Your task to perform on an android device: Go to settings Image 0: 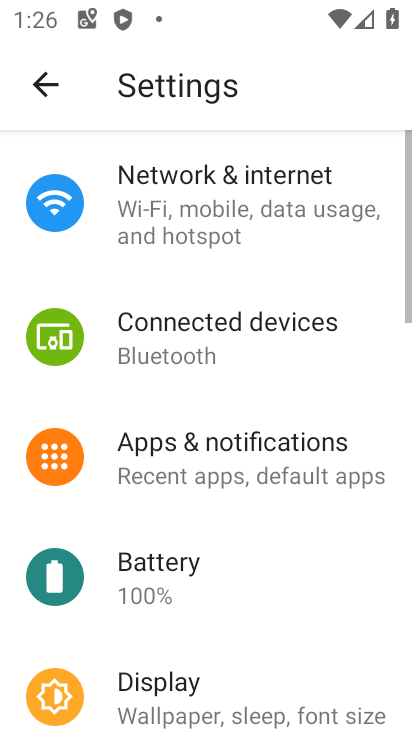
Step 0: drag from (314, 665) to (316, 284)
Your task to perform on an android device: Go to settings Image 1: 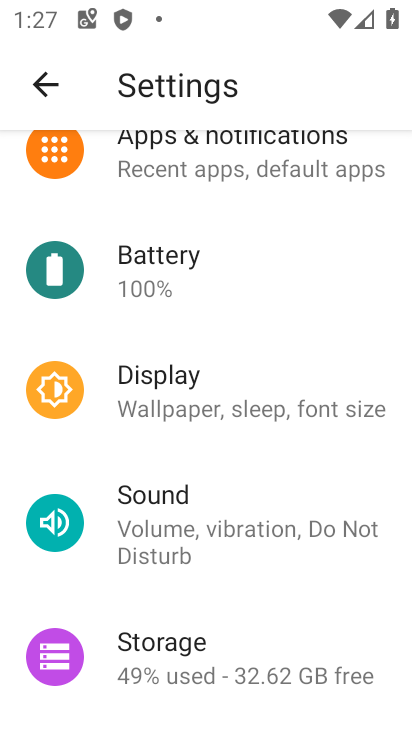
Step 1: task complete